Your task to perform on an android device: Search for vegetarian restaurants on Maps Image 0: 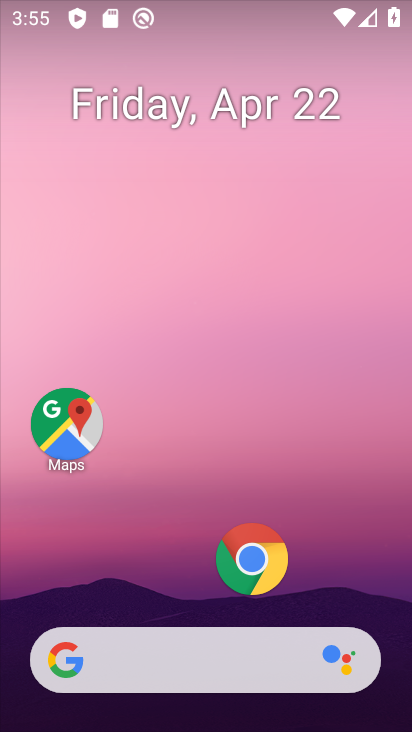
Step 0: click (65, 428)
Your task to perform on an android device: Search for vegetarian restaurants on Maps Image 1: 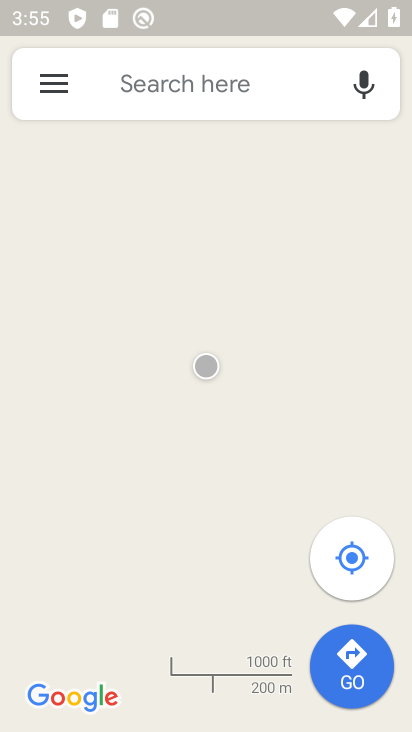
Step 1: click (168, 85)
Your task to perform on an android device: Search for vegetarian restaurants on Maps Image 2: 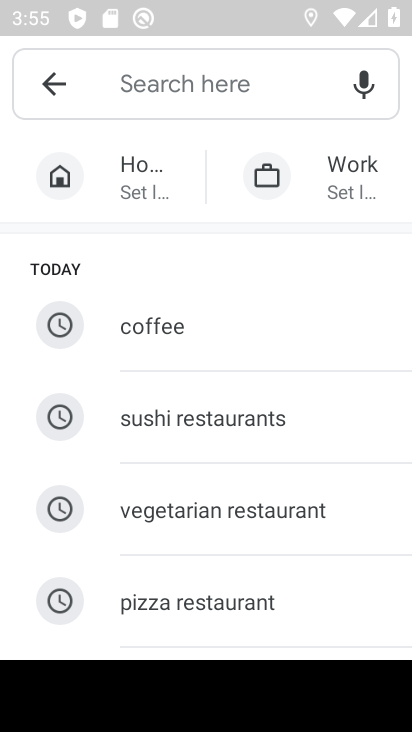
Step 2: type "vegetarian restaurants"
Your task to perform on an android device: Search for vegetarian restaurants on Maps Image 3: 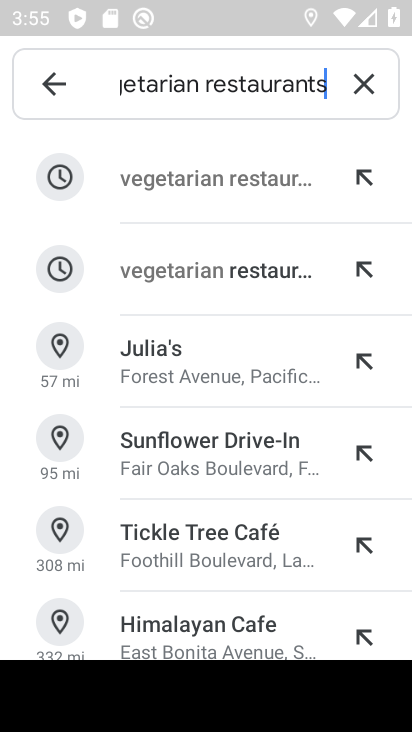
Step 3: click (222, 191)
Your task to perform on an android device: Search for vegetarian restaurants on Maps Image 4: 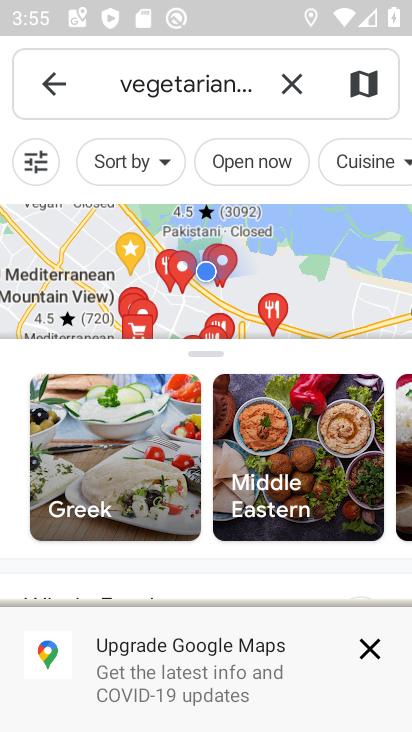
Step 4: task complete